Your task to perform on an android device: open app "The Home Depot" Image 0: 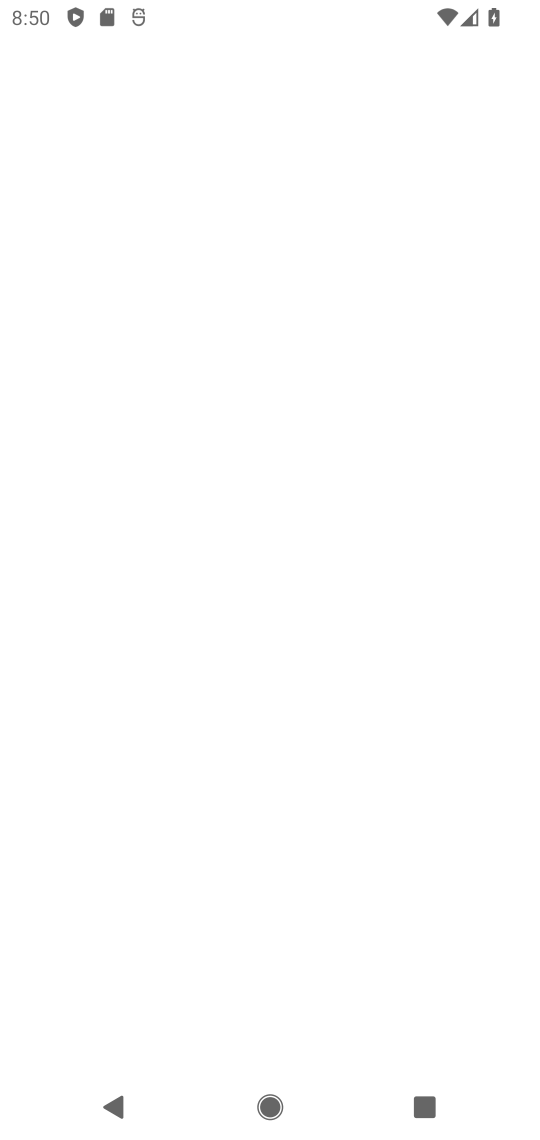
Step 0: press home button
Your task to perform on an android device: open app "The Home Depot" Image 1: 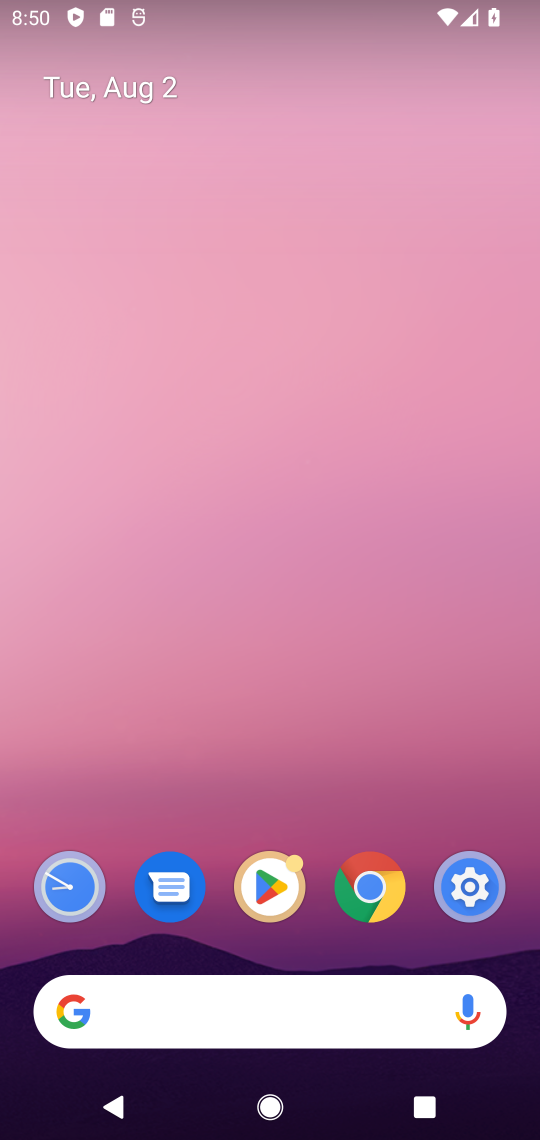
Step 1: click (269, 888)
Your task to perform on an android device: open app "The Home Depot" Image 2: 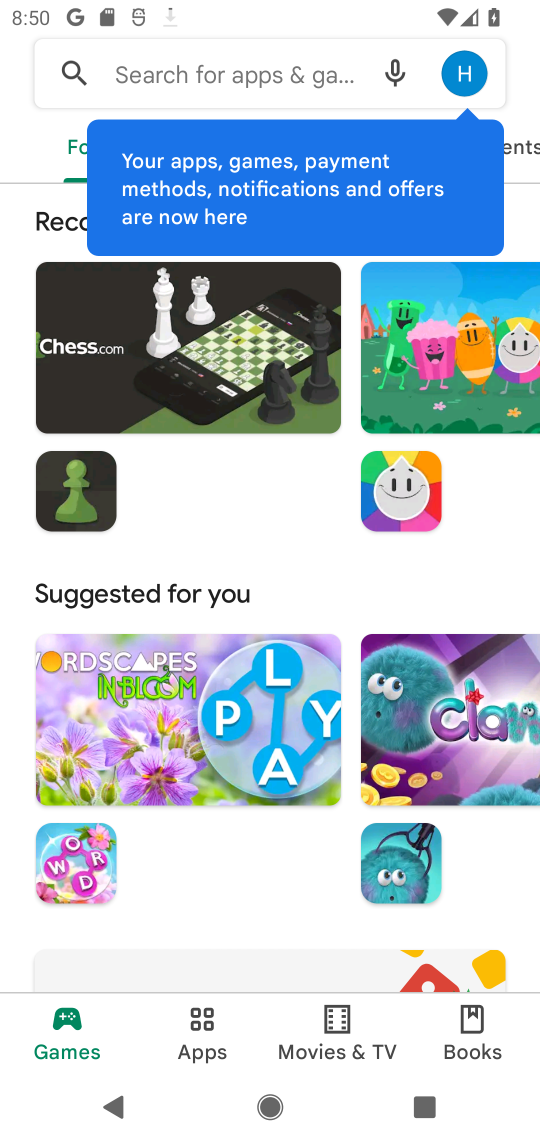
Step 2: click (256, 79)
Your task to perform on an android device: open app "The Home Depot" Image 3: 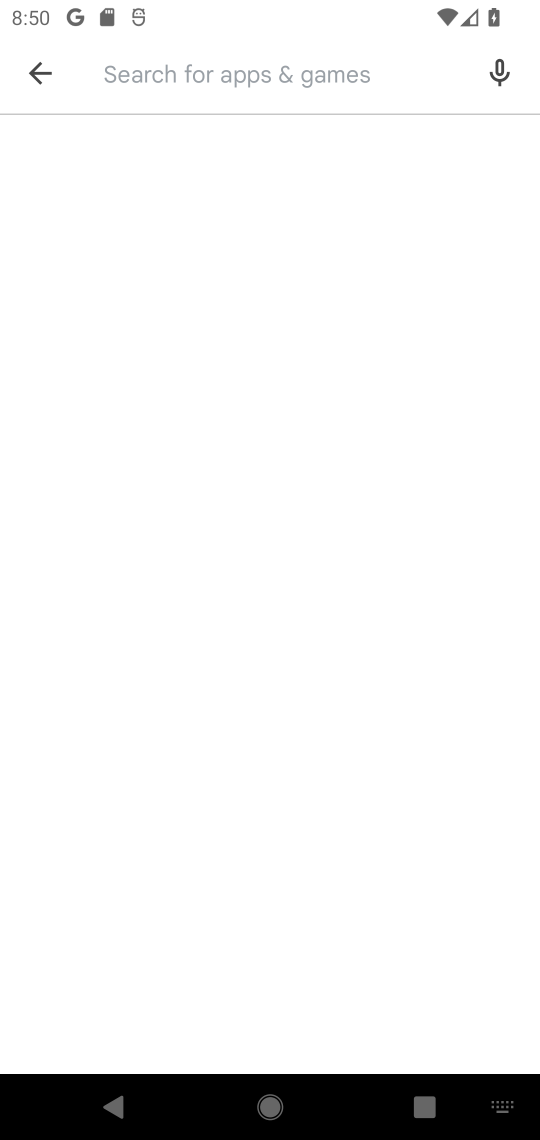
Step 3: type "the home depot"
Your task to perform on an android device: open app "The Home Depot" Image 4: 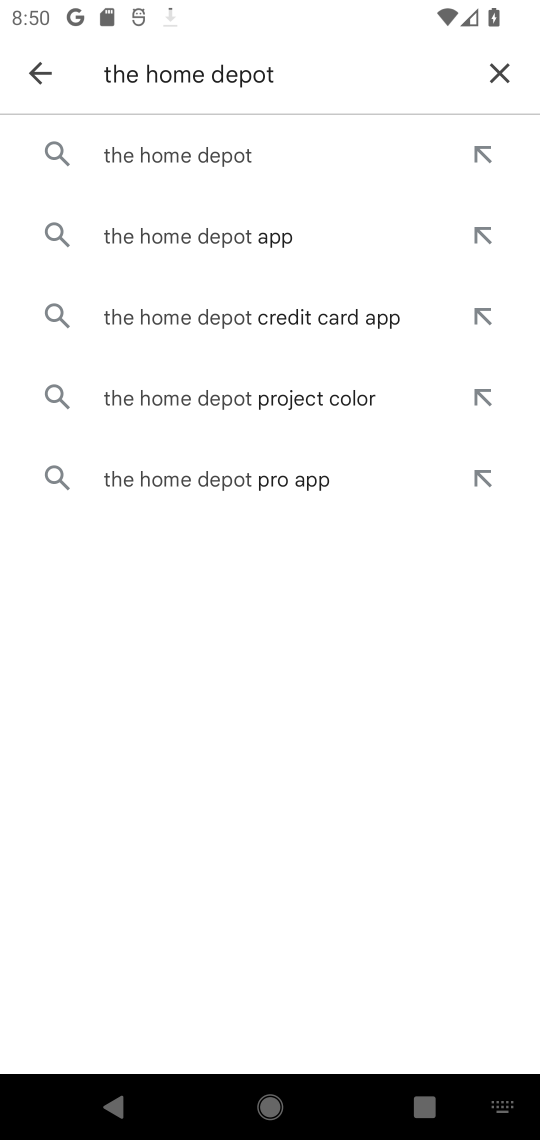
Step 4: click (155, 155)
Your task to perform on an android device: open app "The Home Depot" Image 5: 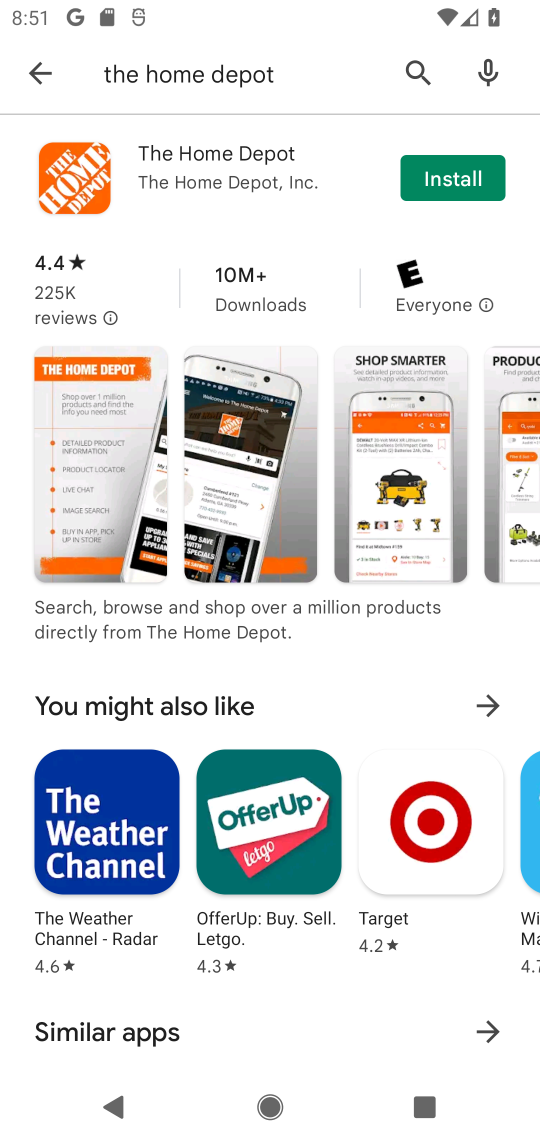
Step 5: click (185, 164)
Your task to perform on an android device: open app "The Home Depot" Image 6: 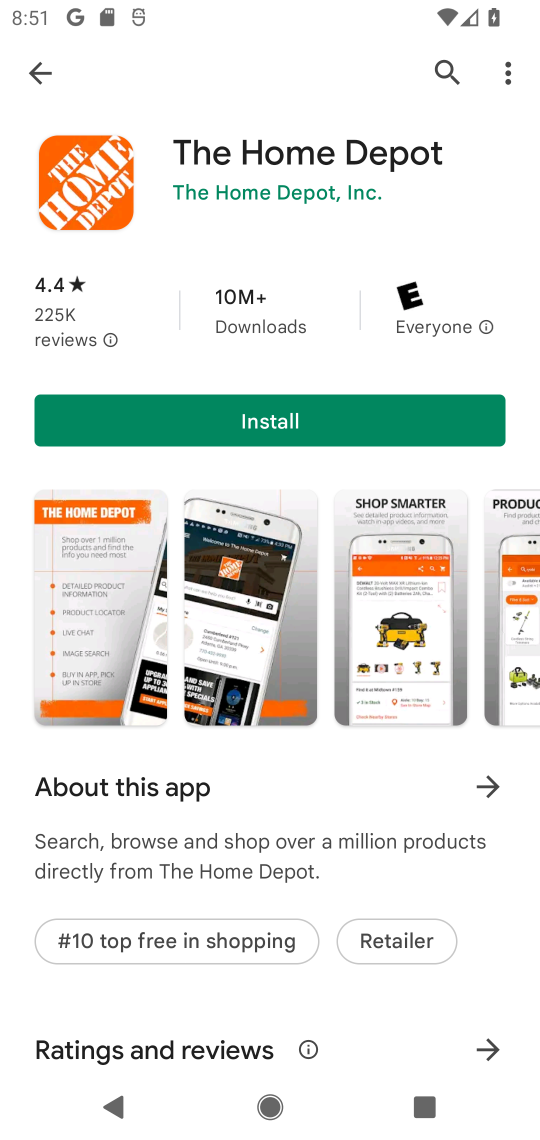
Step 6: task complete